Your task to perform on an android device: Open settings Image 0: 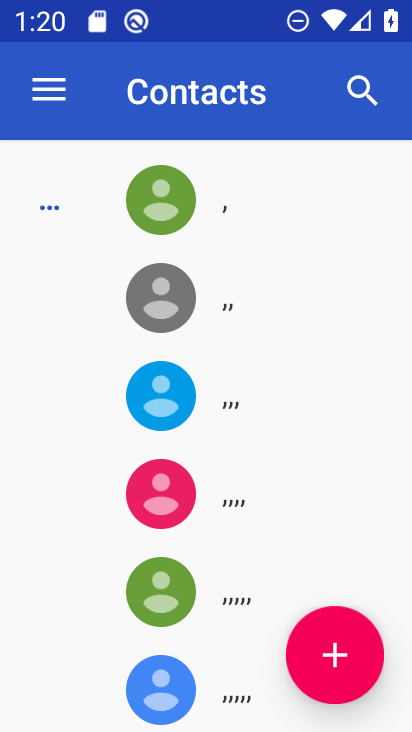
Step 0: press home button
Your task to perform on an android device: Open settings Image 1: 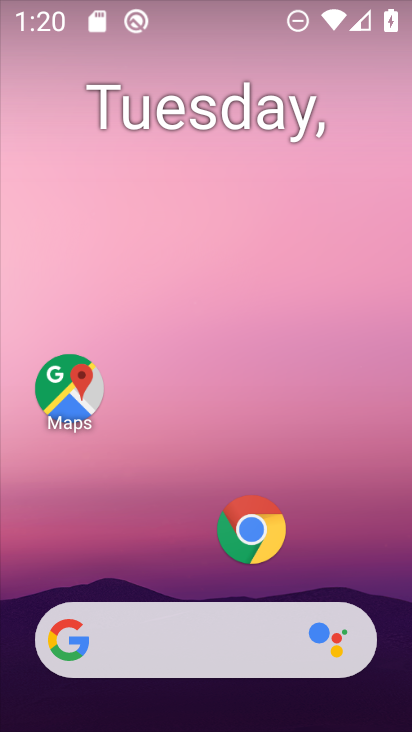
Step 1: drag from (233, 659) to (300, 102)
Your task to perform on an android device: Open settings Image 2: 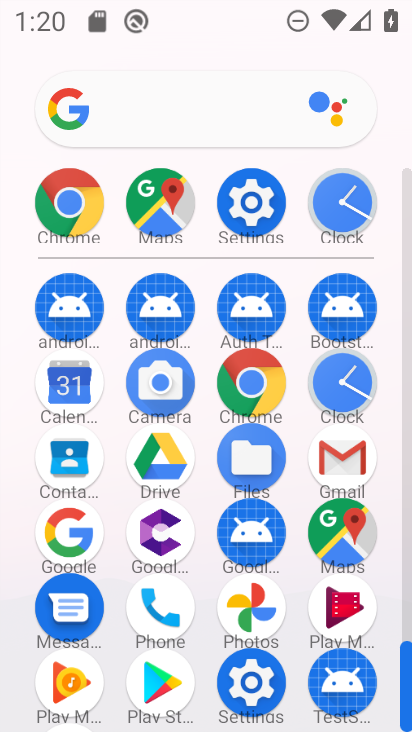
Step 2: click (264, 211)
Your task to perform on an android device: Open settings Image 3: 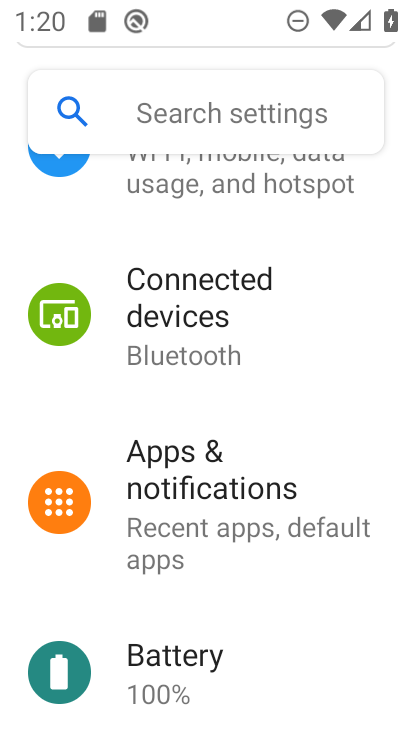
Step 3: task complete